Your task to perform on an android device: turn off improve location accuracy Image 0: 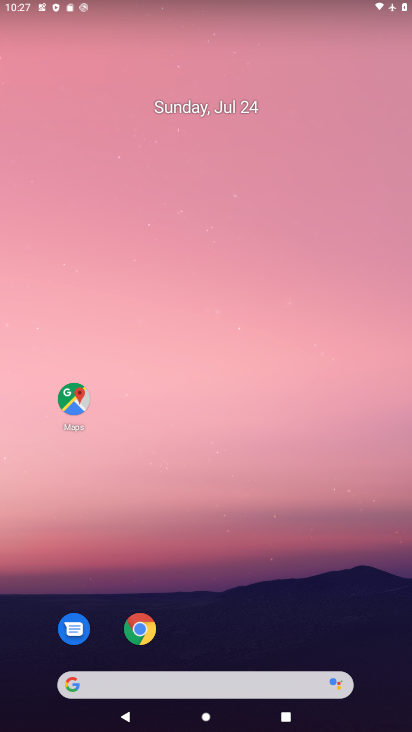
Step 0: drag from (288, 642) to (204, 86)
Your task to perform on an android device: turn off improve location accuracy Image 1: 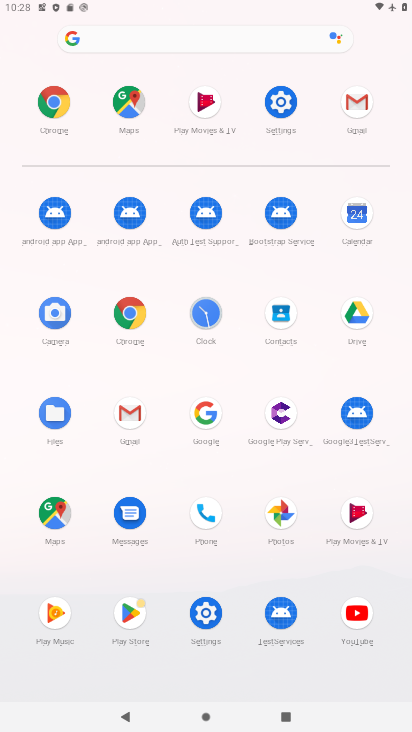
Step 1: click (289, 116)
Your task to perform on an android device: turn off improve location accuracy Image 2: 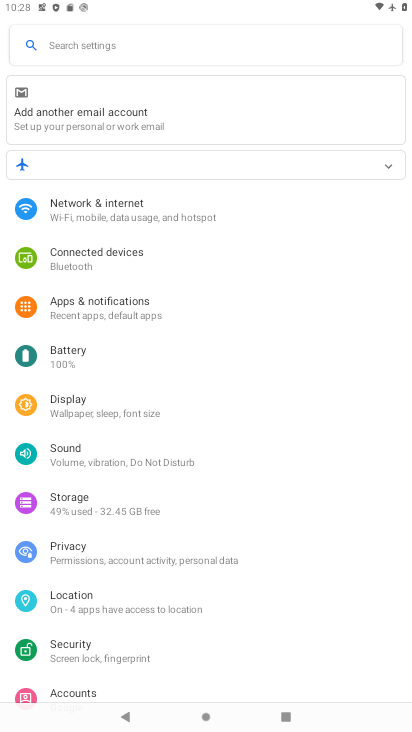
Step 2: task complete